Your task to perform on an android device: Open maps Image 0: 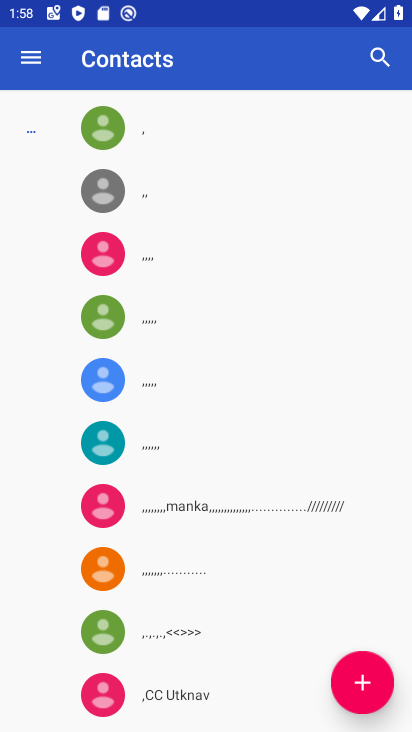
Step 0: press home button
Your task to perform on an android device: Open maps Image 1: 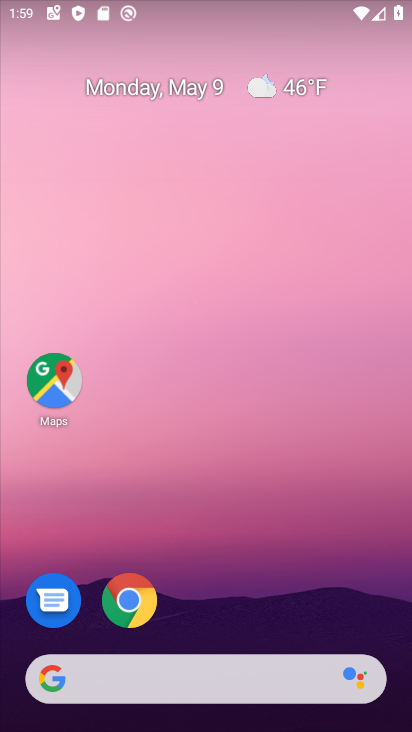
Step 1: click (54, 361)
Your task to perform on an android device: Open maps Image 2: 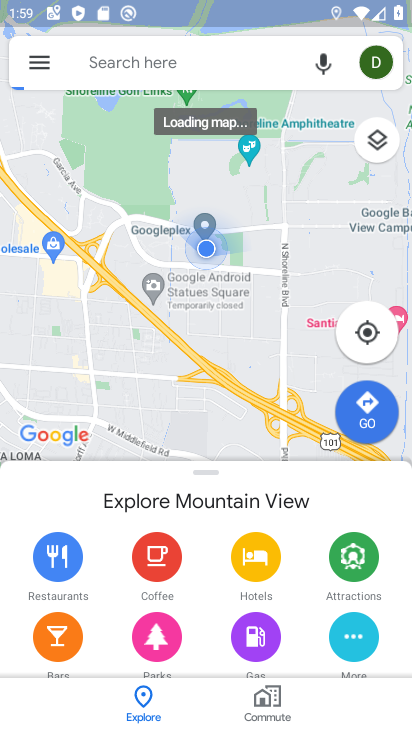
Step 2: task complete